Your task to perform on an android device: Open Google Maps Image 0: 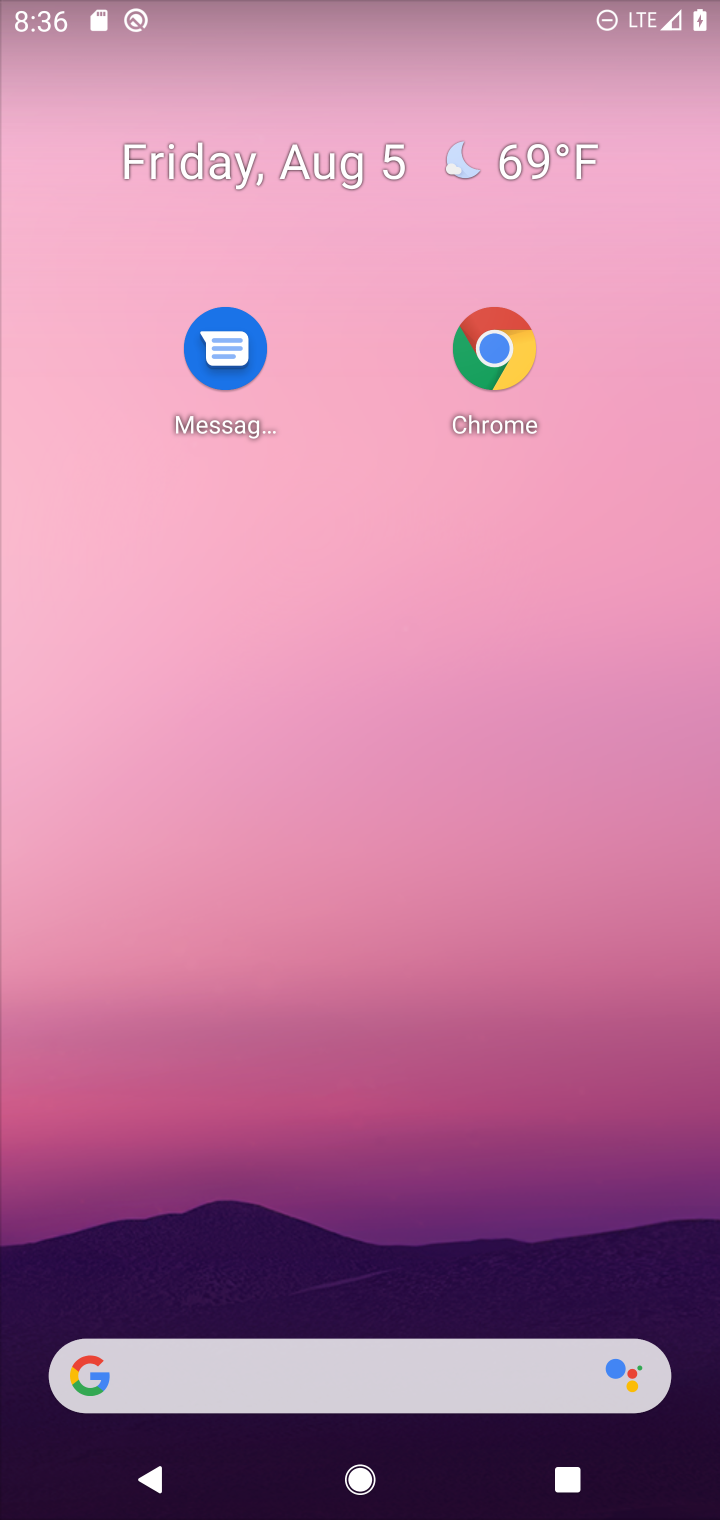
Step 0: press home button
Your task to perform on an android device: Open Google Maps Image 1: 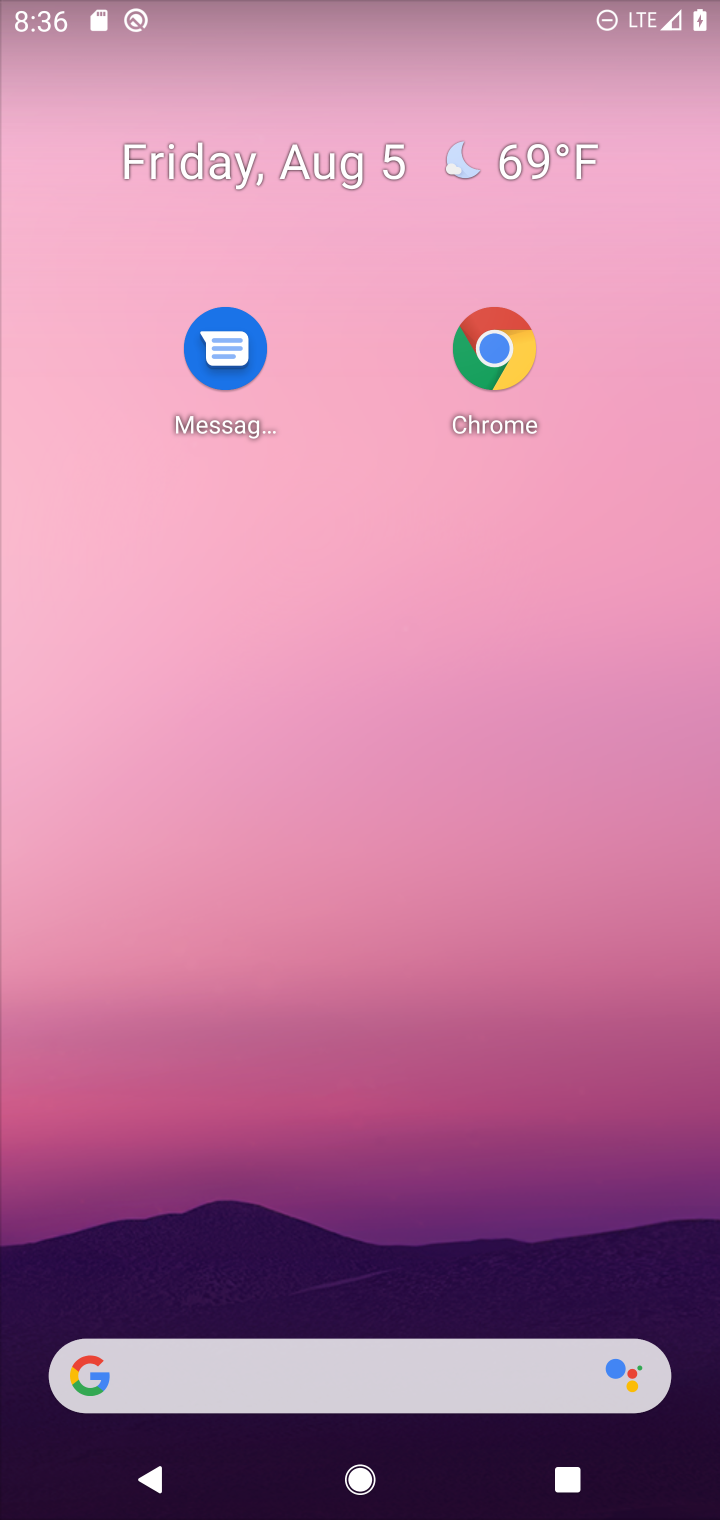
Step 1: drag from (431, 1293) to (661, 161)
Your task to perform on an android device: Open Google Maps Image 2: 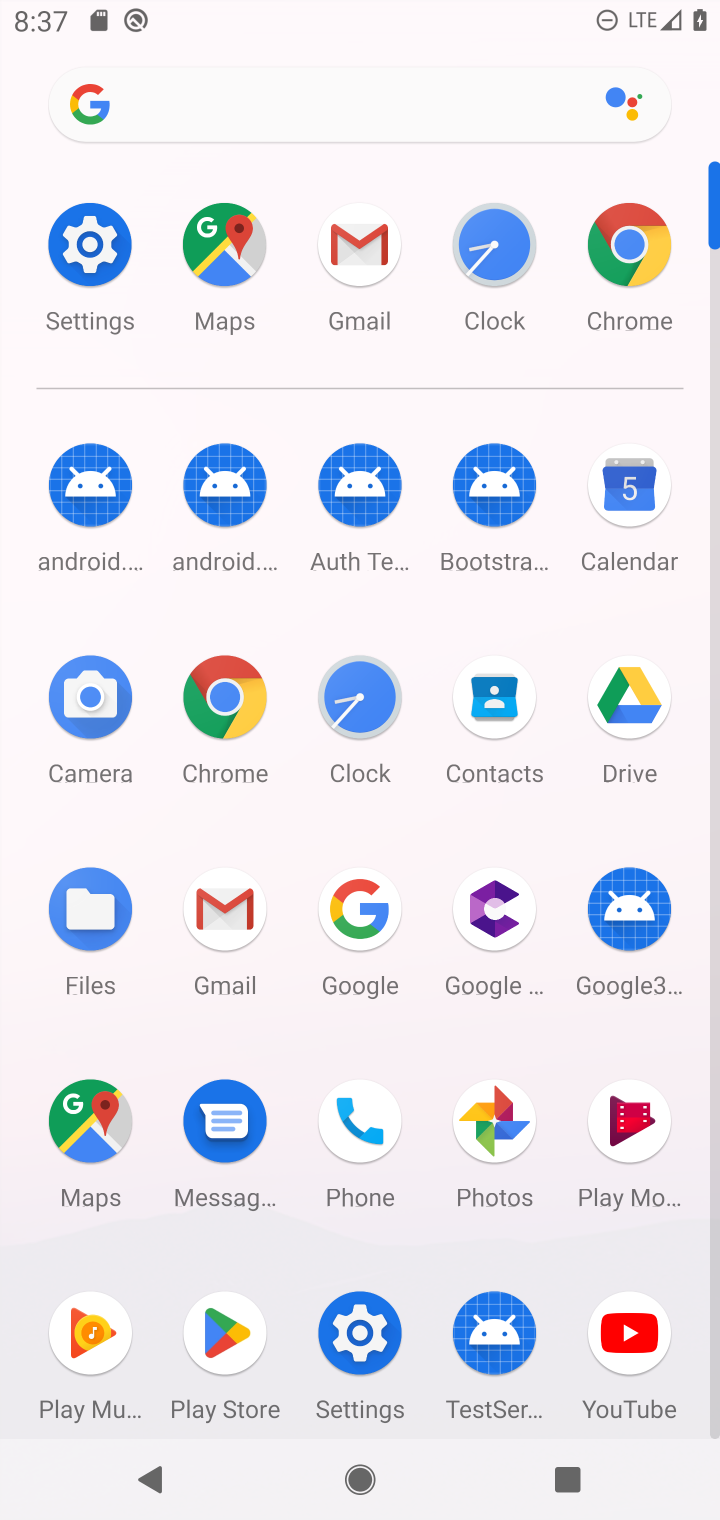
Step 2: click (216, 213)
Your task to perform on an android device: Open Google Maps Image 3: 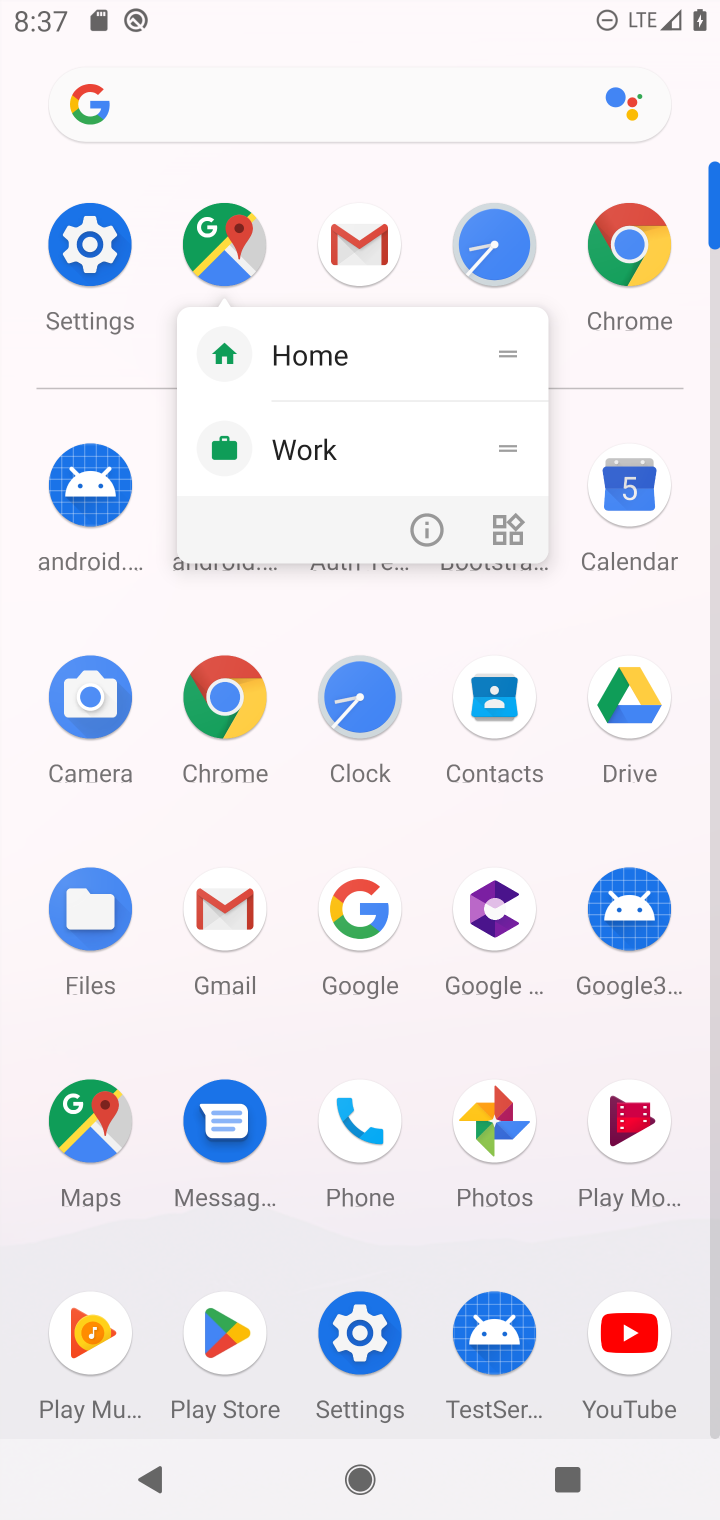
Step 3: click (208, 223)
Your task to perform on an android device: Open Google Maps Image 4: 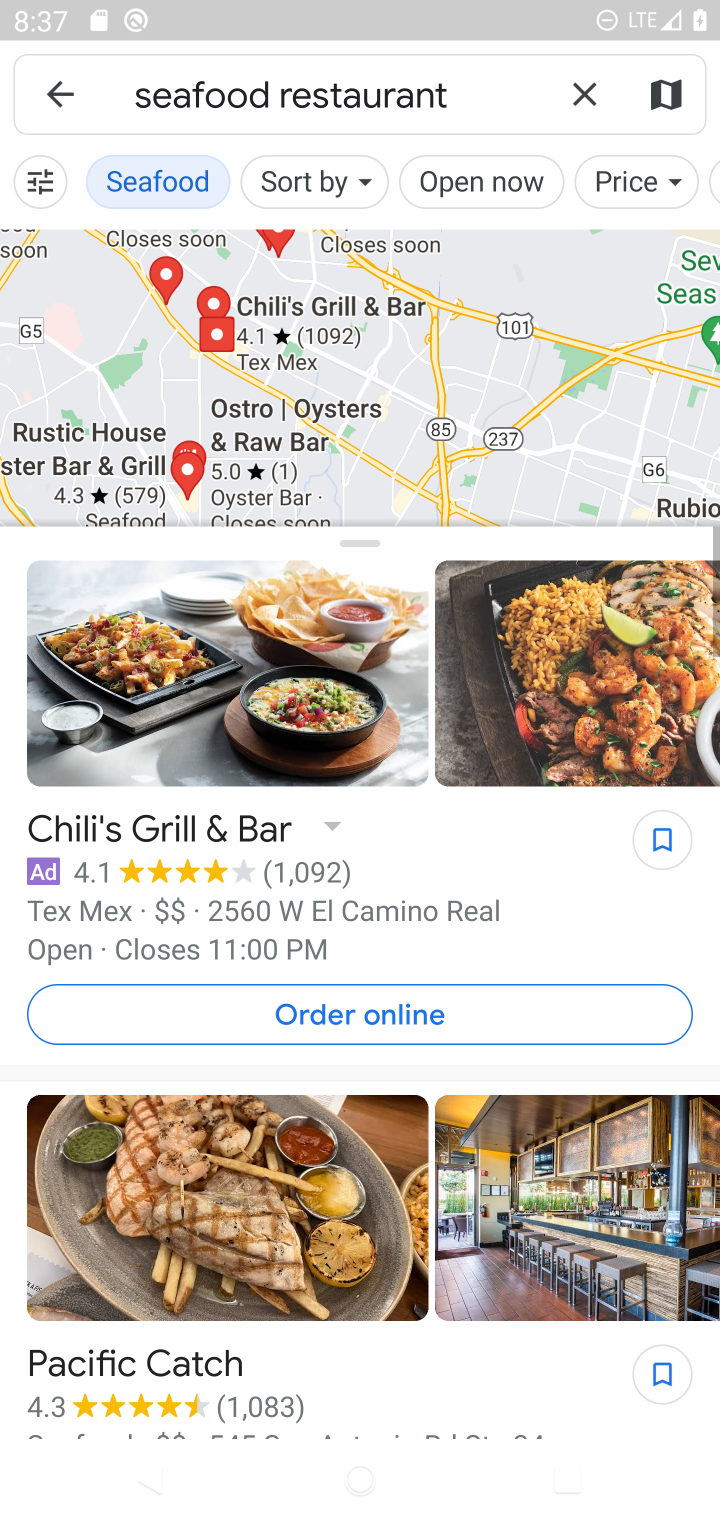
Step 4: click (53, 89)
Your task to perform on an android device: Open Google Maps Image 5: 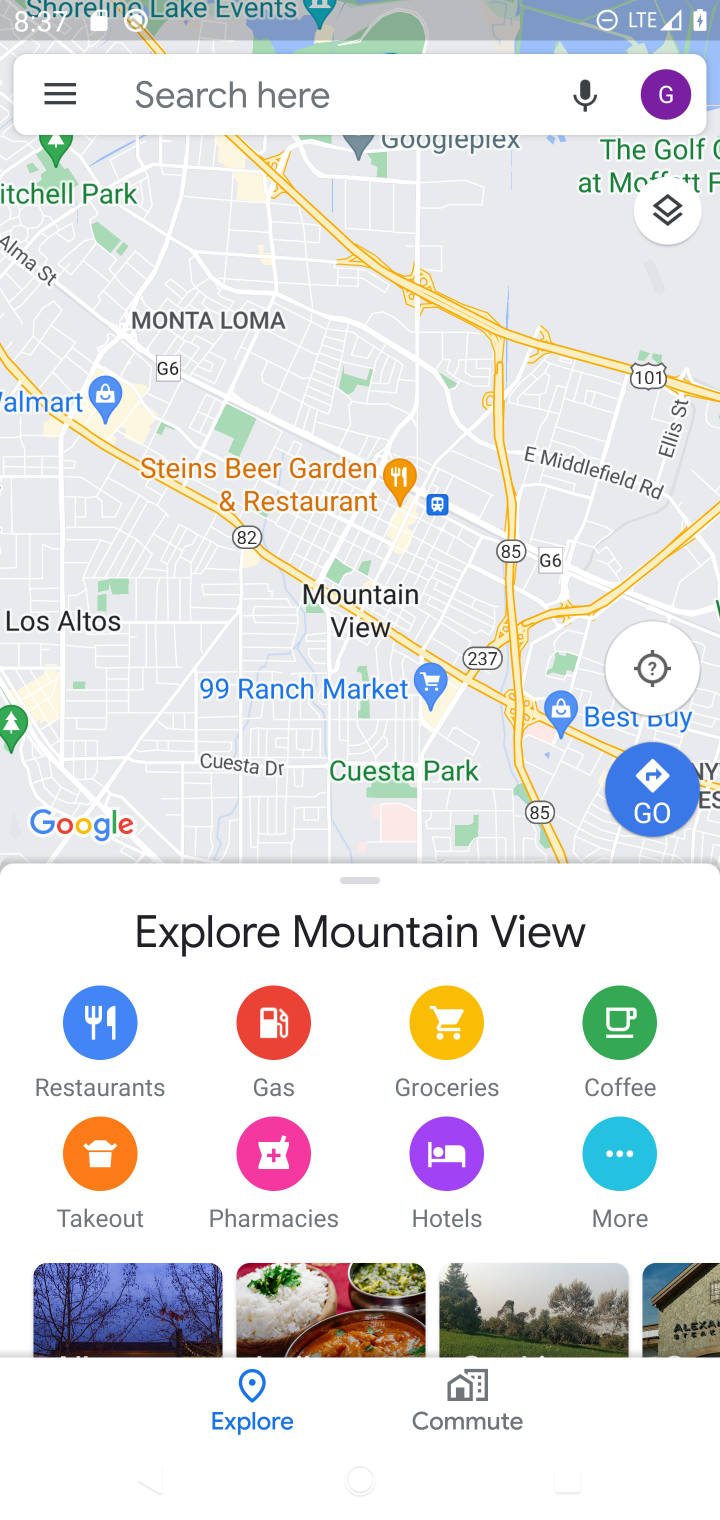
Step 5: click (659, 654)
Your task to perform on an android device: Open Google Maps Image 6: 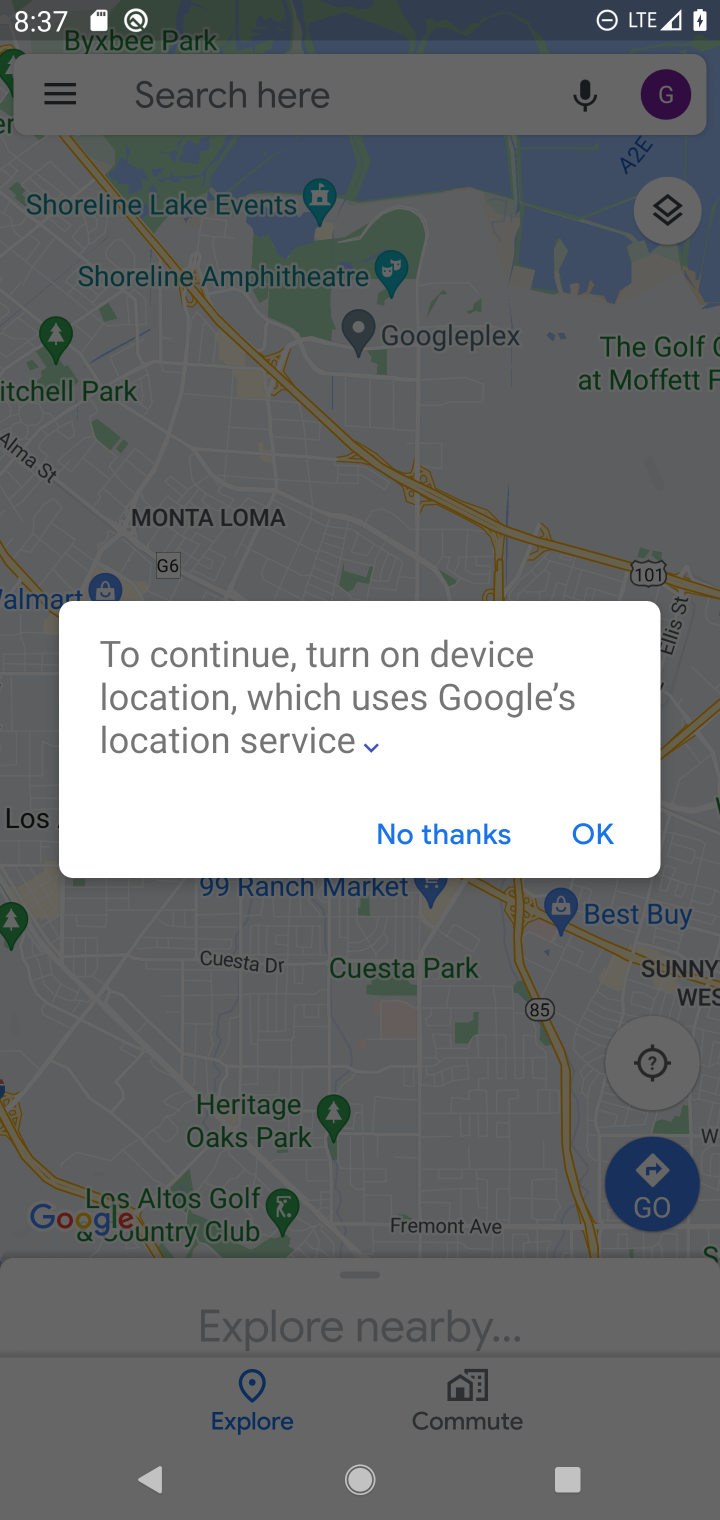
Step 6: click (409, 824)
Your task to perform on an android device: Open Google Maps Image 7: 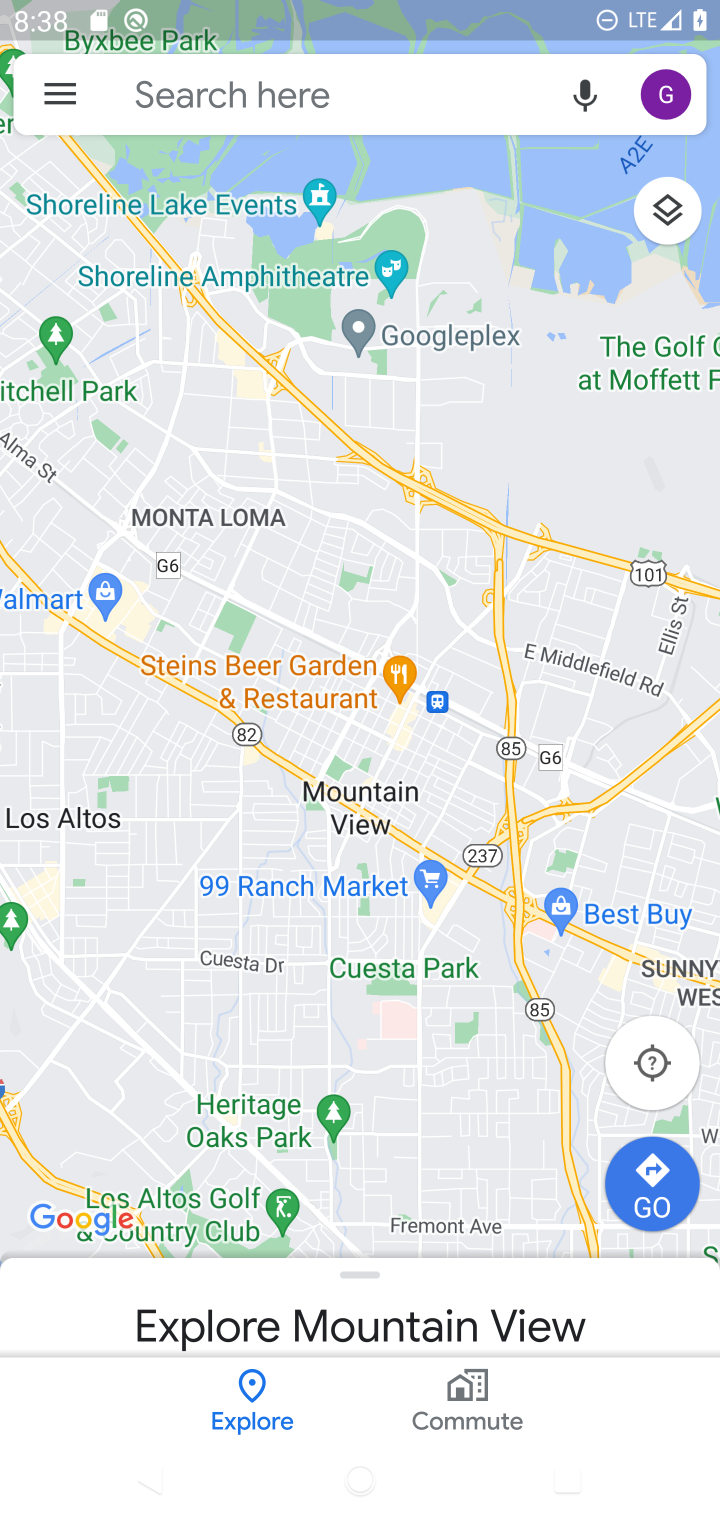
Step 7: task complete